Your task to perform on an android device: change keyboard looks Image 0: 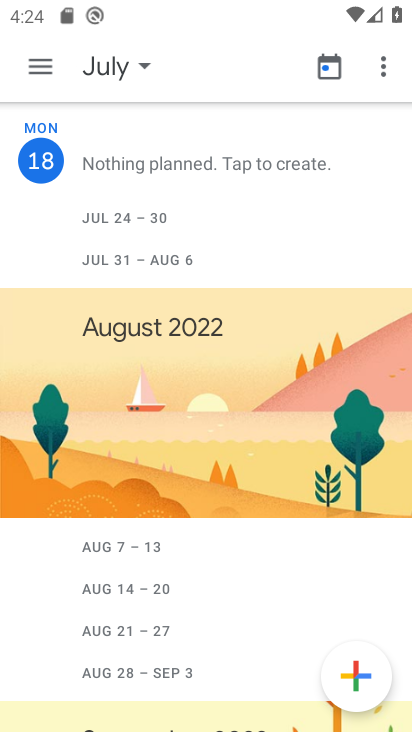
Step 0: press home button
Your task to perform on an android device: change keyboard looks Image 1: 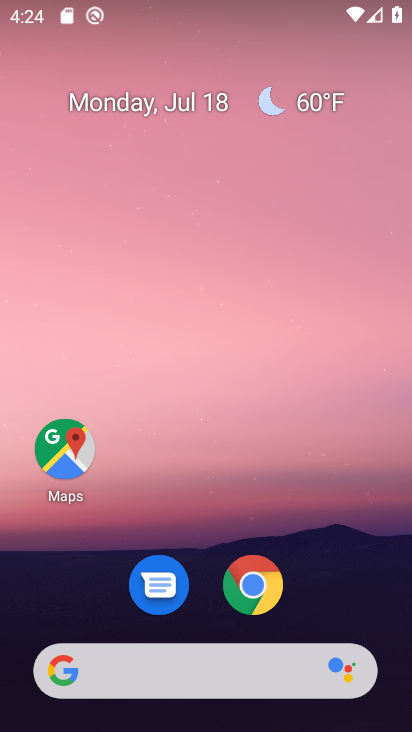
Step 1: drag from (350, 604) to (409, 146)
Your task to perform on an android device: change keyboard looks Image 2: 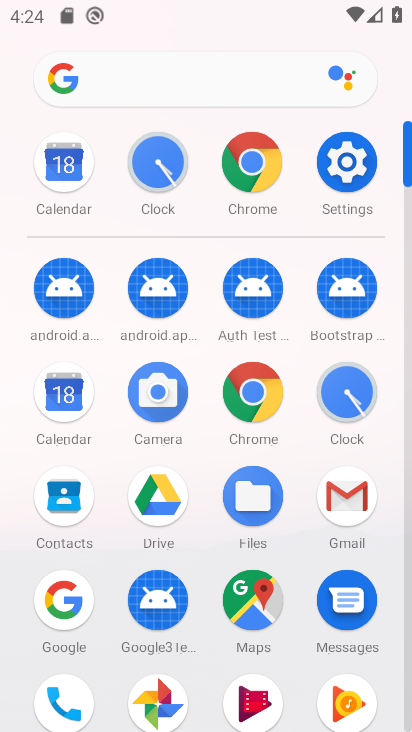
Step 2: click (347, 166)
Your task to perform on an android device: change keyboard looks Image 3: 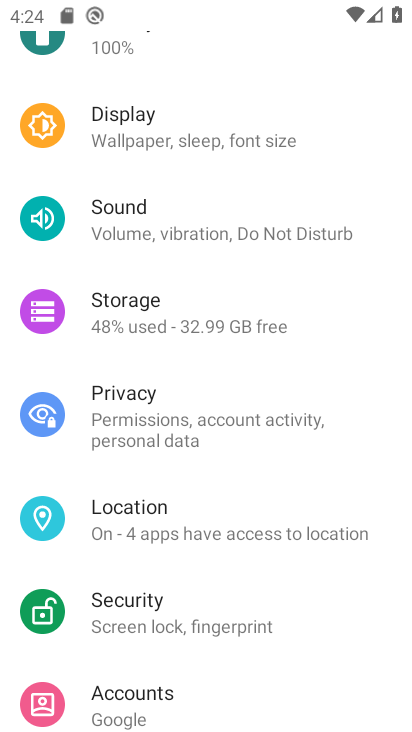
Step 3: drag from (275, 579) to (304, 176)
Your task to perform on an android device: change keyboard looks Image 4: 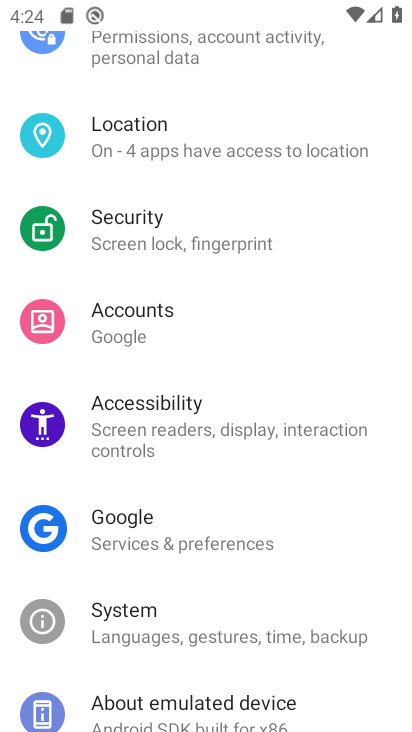
Step 4: click (259, 638)
Your task to perform on an android device: change keyboard looks Image 5: 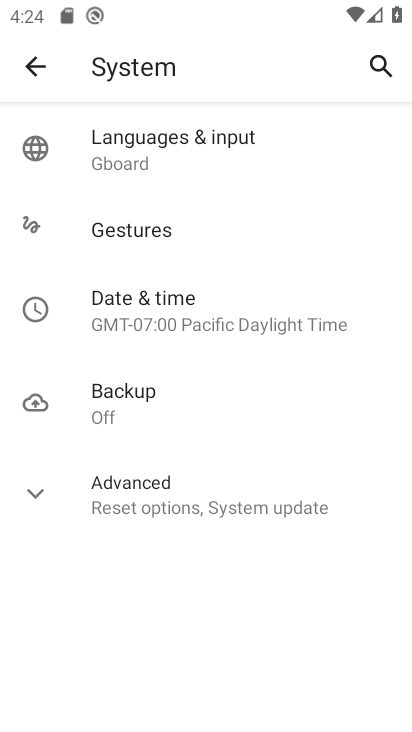
Step 5: click (208, 153)
Your task to perform on an android device: change keyboard looks Image 6: 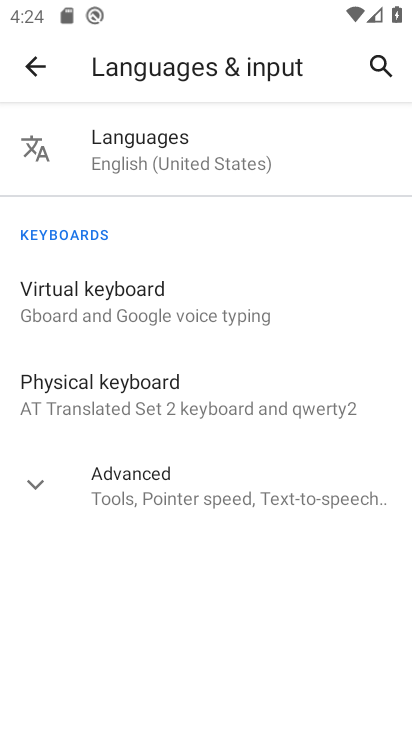
Step 6: click (187, 307)
Your task to perform on an android device: change keyboard looks Image 7: 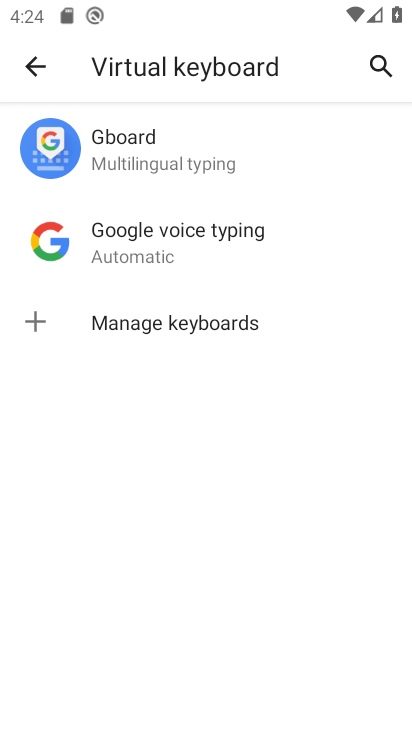
Step 7: click (199, 147)
Your task to perform on an android device: change keyboard looks Image 8: 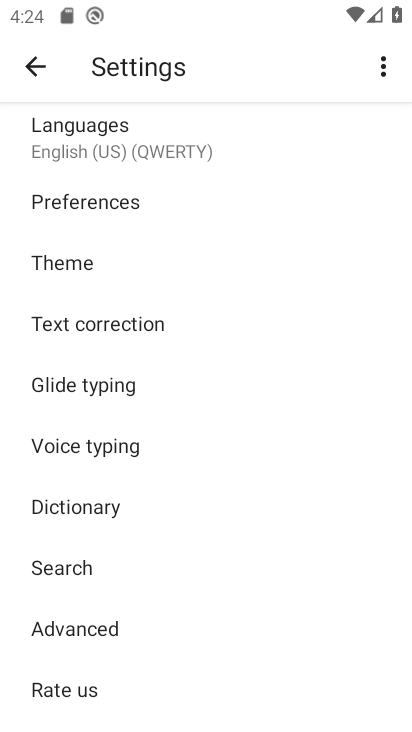
Step 8: click (87, 265)
Your task to perform on an android device: change keyboard looks Image 9: 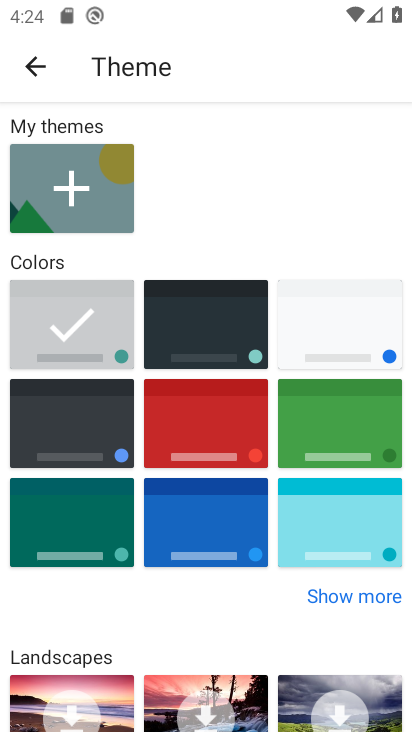
Step 9: click (242, 443)
Your task to perform on an android device: change keyboard looks Image 10: 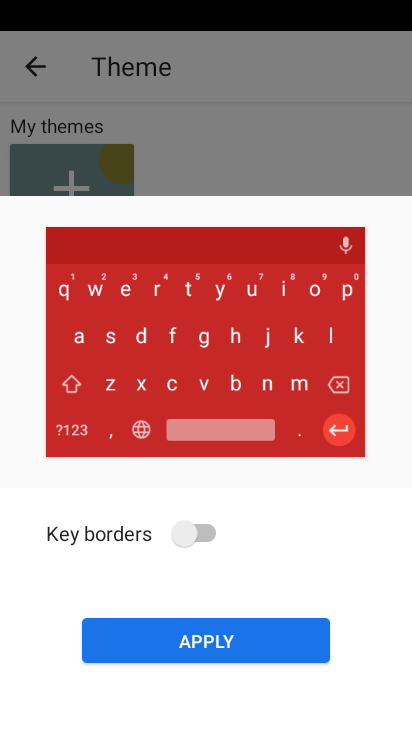
Step 10: click (198, 526)
Your task to perform on an android device: change keyboard looks Image 11: 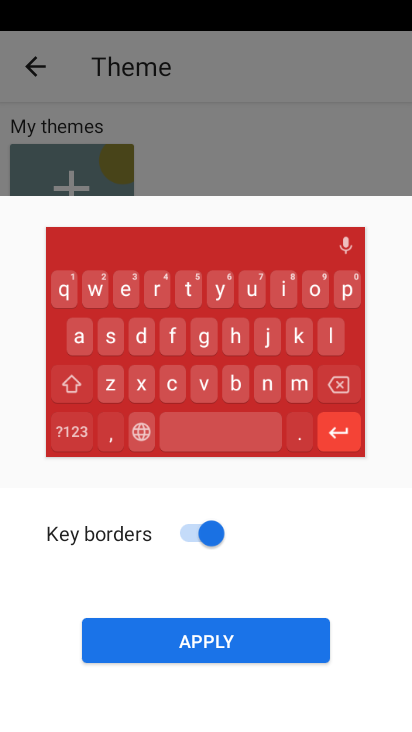
Step 11: click (220, 645)
Your task to perform on an android device: change keyboard looks Image 12: 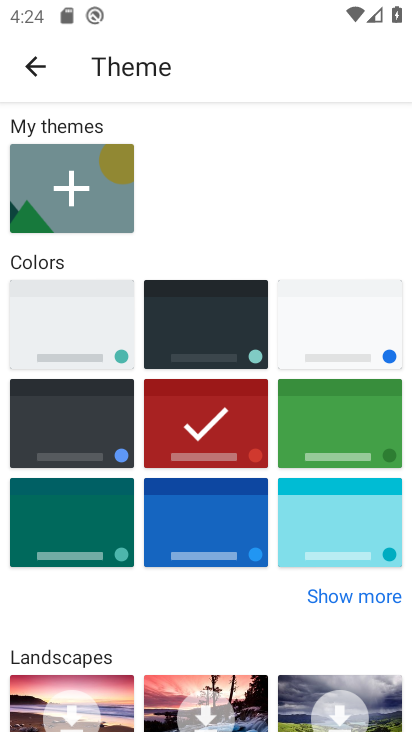
Step 12: task complete